Your task to perform on an android device: Open display settings Image 0: 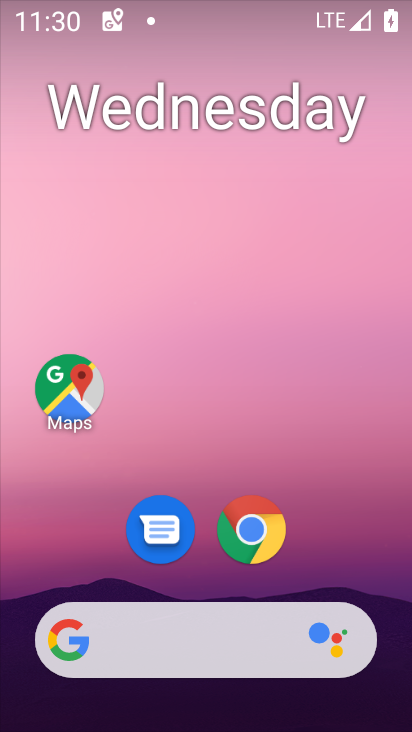
Step 0: drag from (395, 622) to (349, 228)
Your task to perform on an android device: Open display settings Image 1: 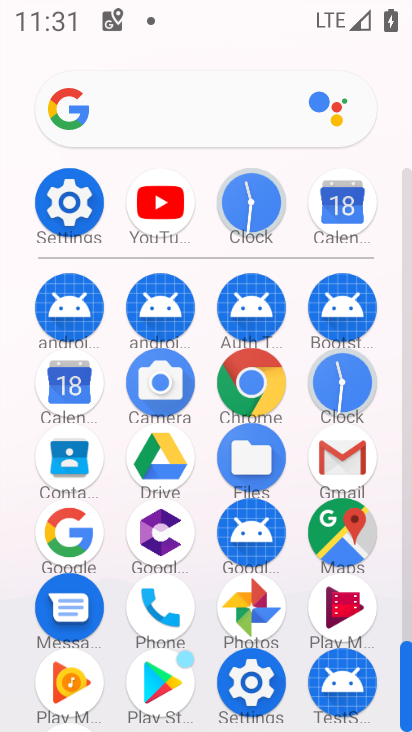
Step 1: click (251, 684)
Your task to perform on an android device: Open display settings Image 2: 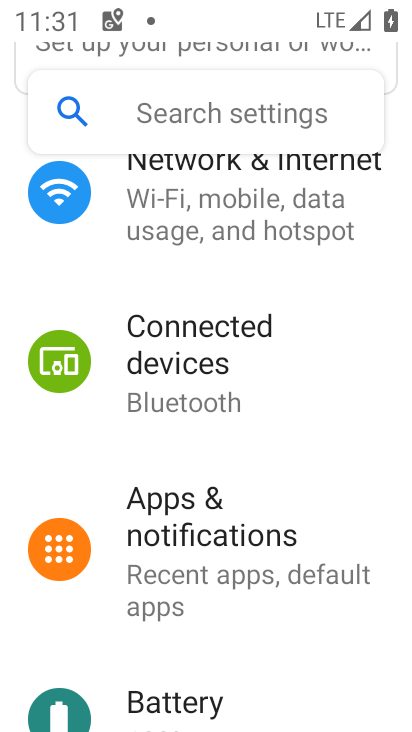
Step 2: drag from (323, 616) to (327, 257)
Your task to perform on an android device: Open display settings Image 3: 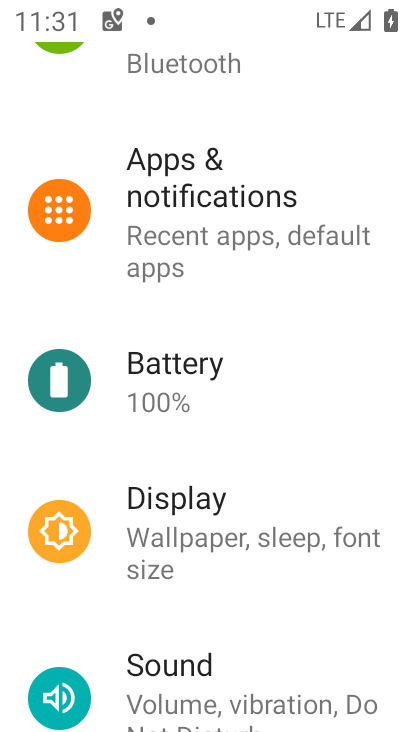
Step 3: click (181, 523)
Your task to perform on an android device: Open display settings Image 4: 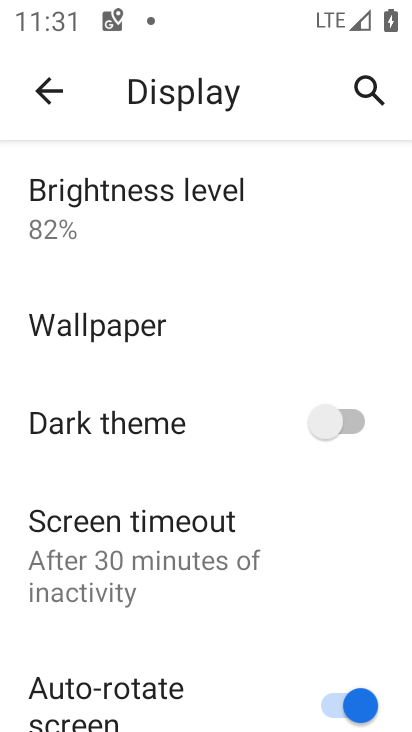
Step 4: drag from (243, 620) to (235, 323)
Your task to perform on an android device: Open display settings Image 5: 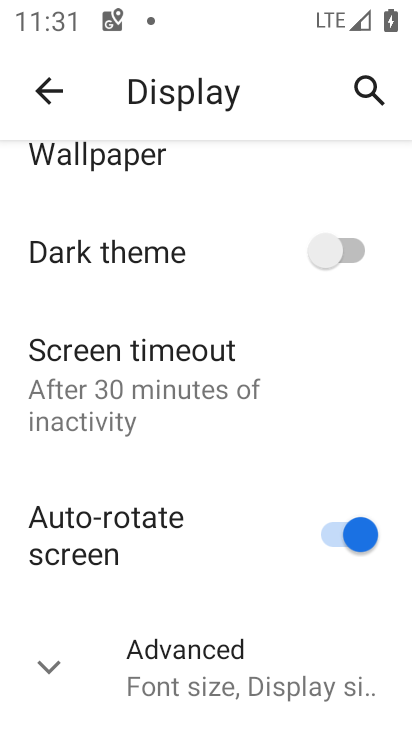
Step 5: click (47, 666)
Your task to perform on an android device: Open display settings Image 6: 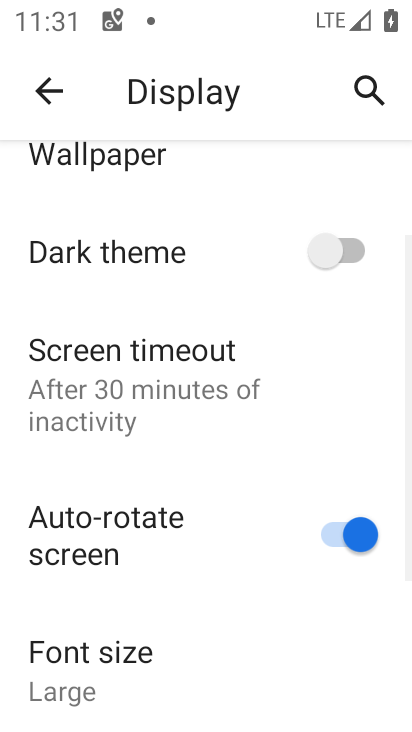
Step 6: task complete